Your task to perform on an android device: open app "Venmo" (install if not already installed) and go to login screen Image 0: 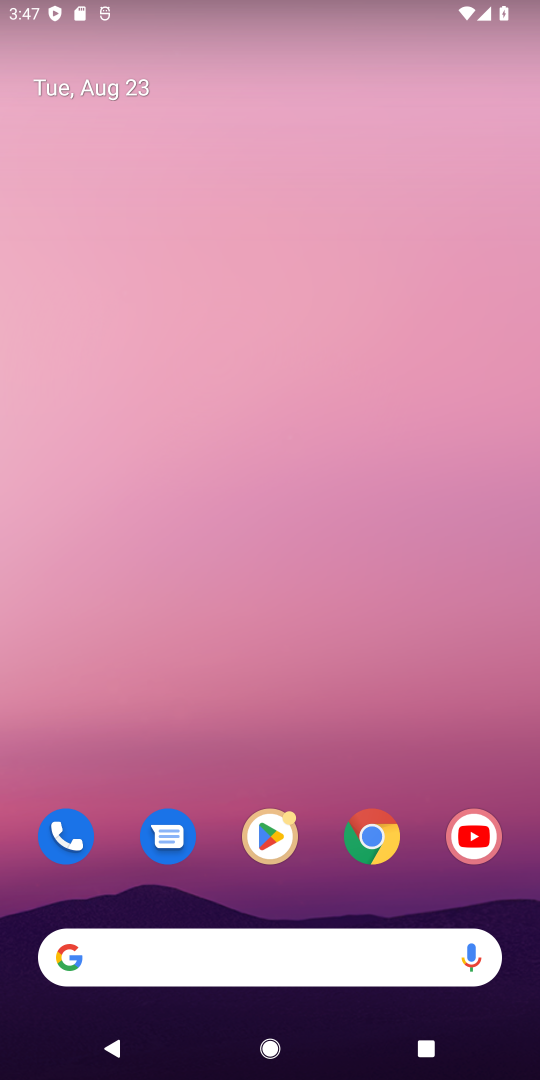
Step 0: click (268, 836)
Your task to perform on an android device: open app "Venmo" (install if not already installed) and go to login screen Image 1: 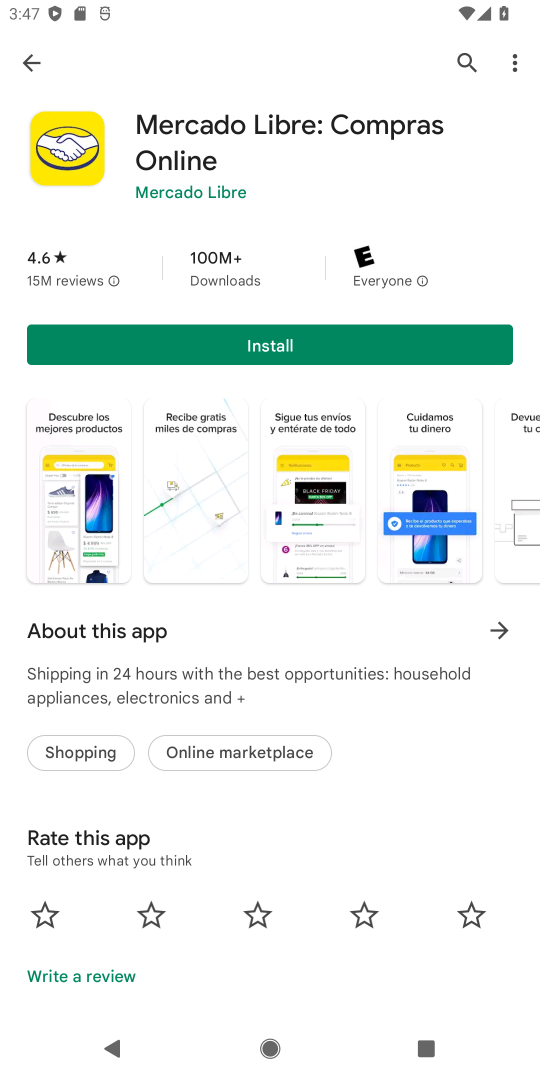
Step 1: click (461, 55)
Your task to perform on an android device: open app "Venmo" (install if not already installed) and go to login screen Image 2: 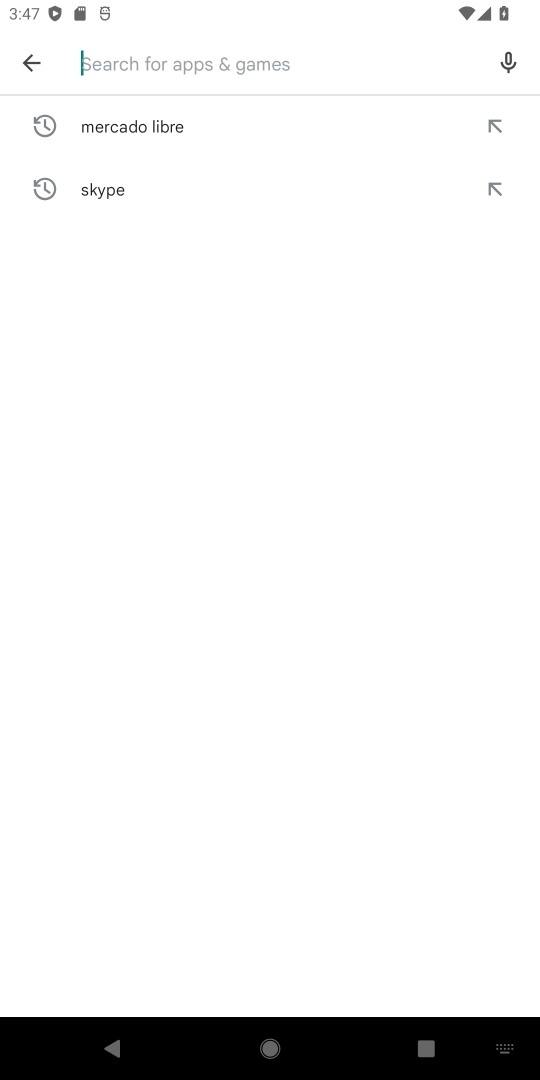
Step 2: type "Venmo"
Your task to perform on an android device: open app "Venmo" (install if not already installed) and go to login screen Image 3: 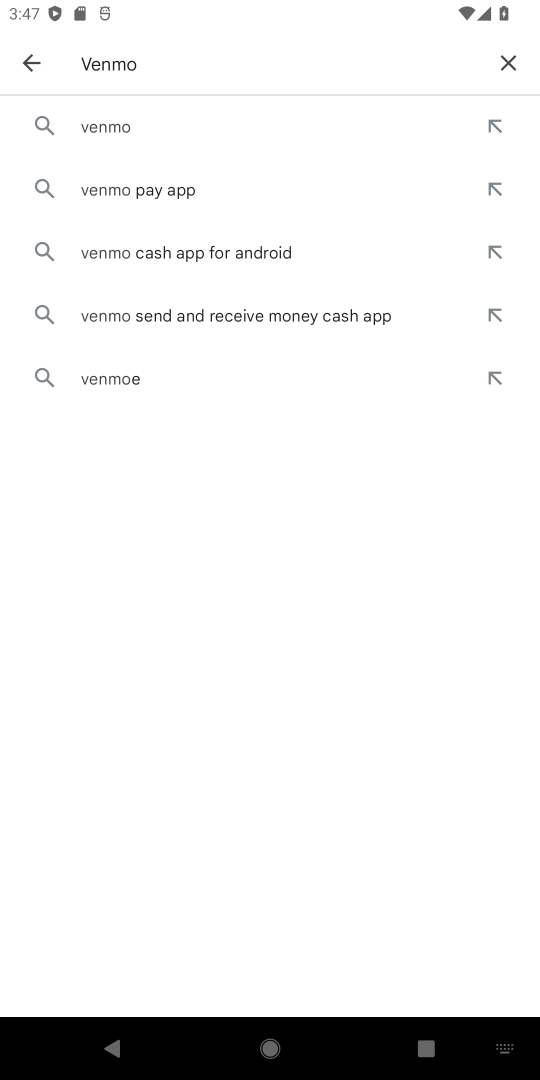
Step 3: click (103, 132)
Your task to perform on an android device: open app "Venmo" (install if not already installed) and go to login screen Image 4: 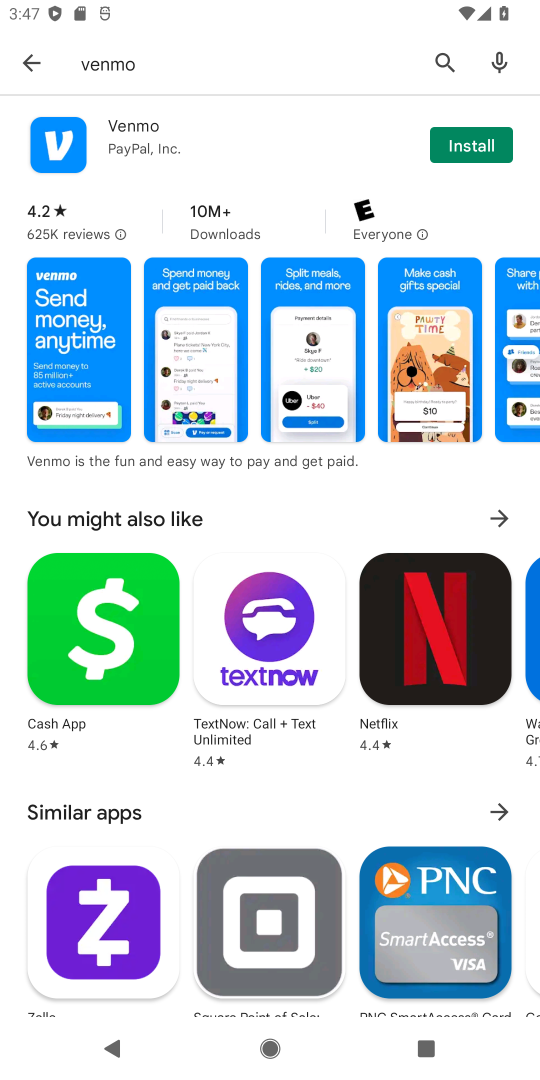
Step 4: click (474, 142)
Your task to perform on an android device: open app "Venmo" (install if not already installed) and go to login screen Image 5: 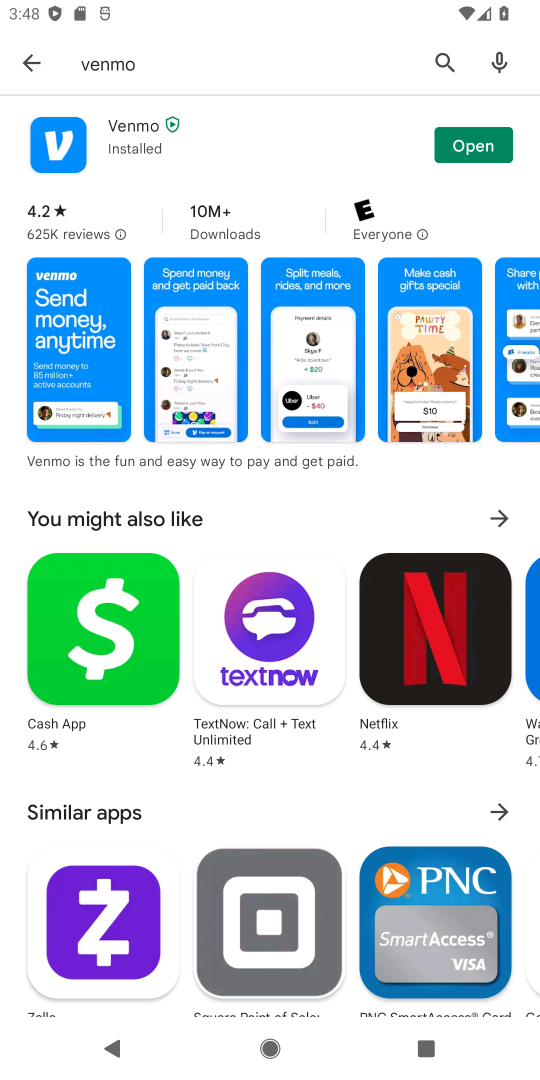
Step 5: click (474, 158)
Your task to perform on an android device: open app "Venmo" (install if not already installed) and go to login screen Image 6: 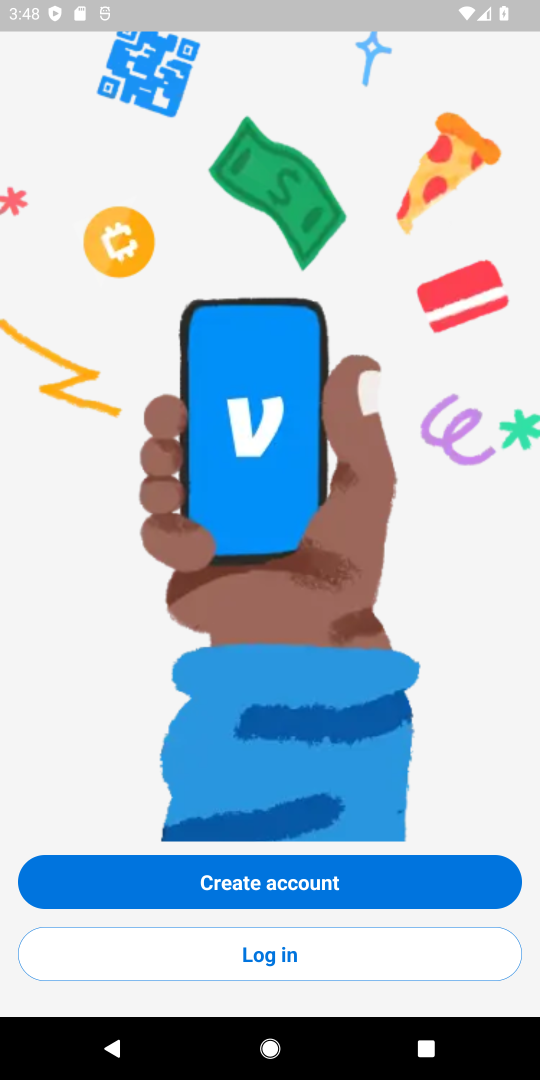
Step 6: click (258, 951)
Your task to perform on an android device: open app "Venmo" (install if not already installed) and go to login screen Image 7: 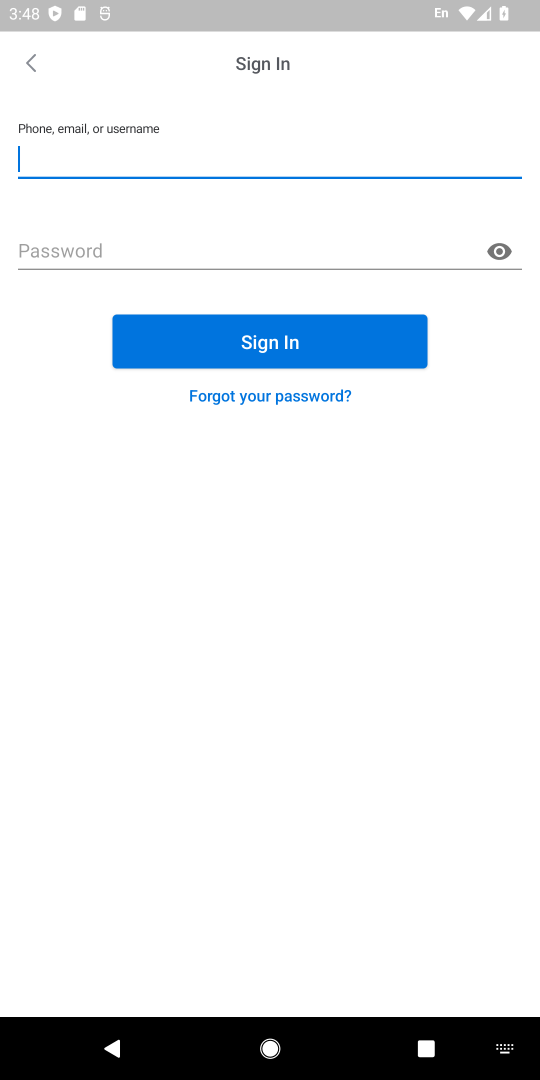
Step 7: task complete